Your task to perform on an android device: turn on improve location accuracy Image 0: 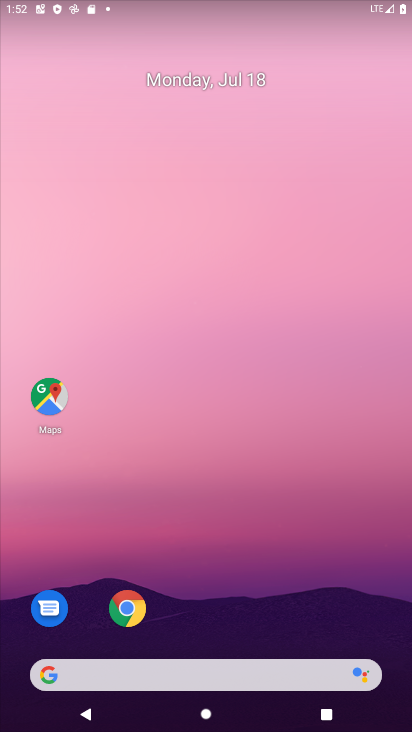
Step 0: drag from (384, 640) to (232, 100)
Your task to perform on an android device: turn on improve location accuracy Image 1: 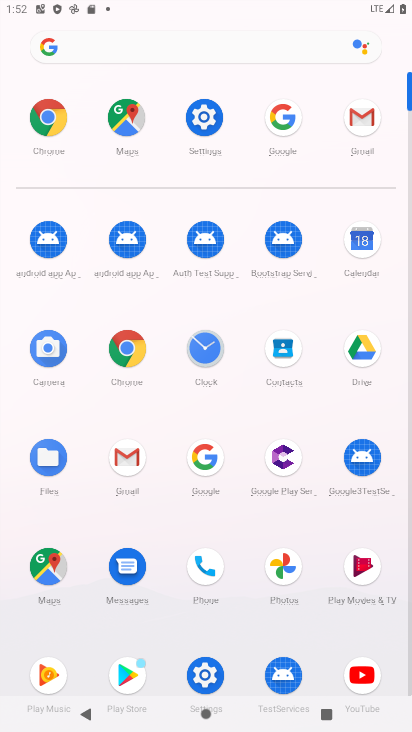
Step 1: click (195, 124)
Your task to perform on an android device: turn on improve location accuracy Image 2: 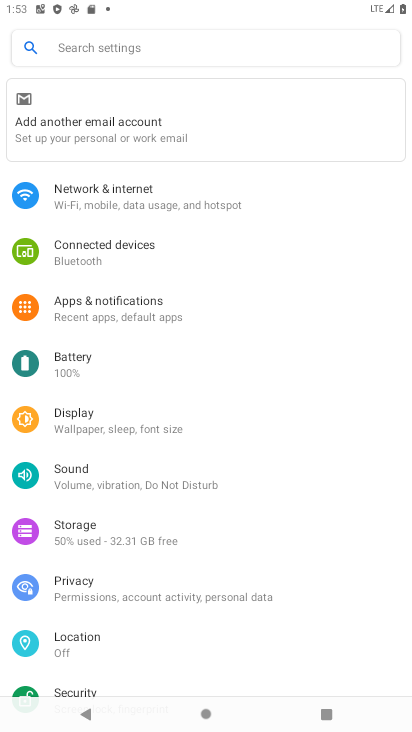
Step 2: click (90, 649)
Your task to perform on an android device: turn on improve location accuracy Image 3: 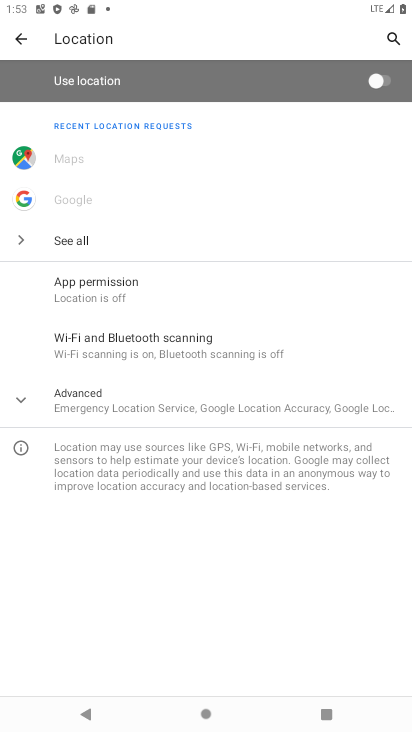
Step 3: click (77, 406)
Your task to perform on an android device: turn on improve location accuracy Image 4: 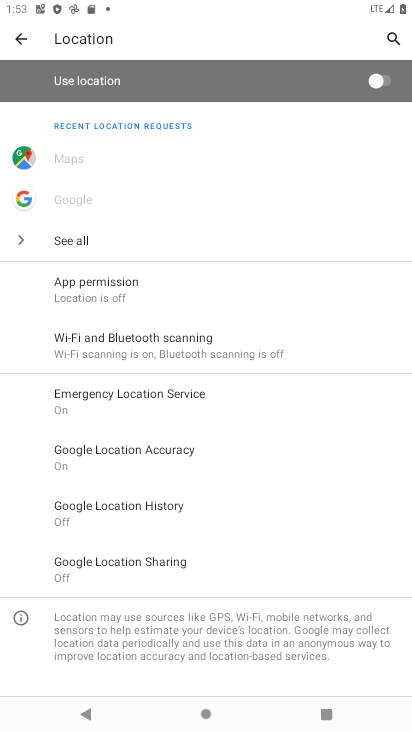
Step 4: click (114, 468)
Your task to perform on an android device: turn on improve location accuracy Image 5: 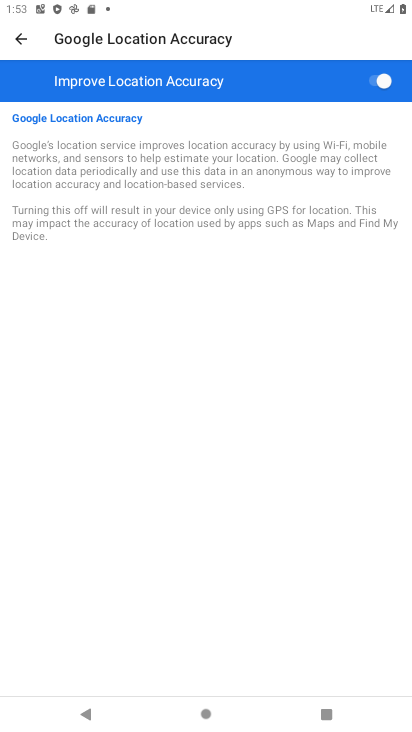
Step 5: task complete